Your task to perform on an android device: open a bookmark in the chrome app Image 0: 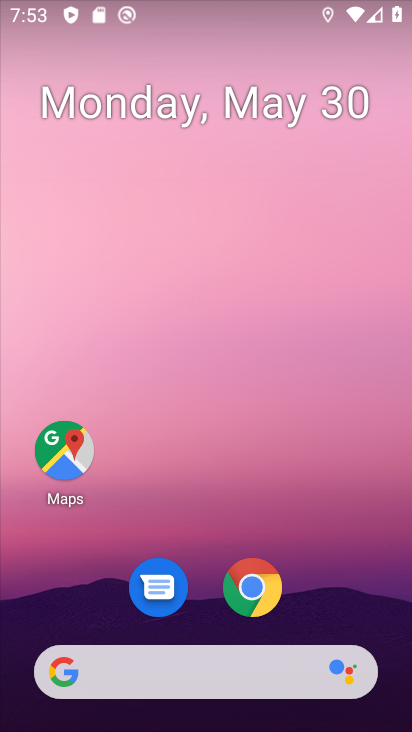
Step 0: click (244, 602)
Your task to perform on an android device: open a bookmark in the chrome app Image 1: 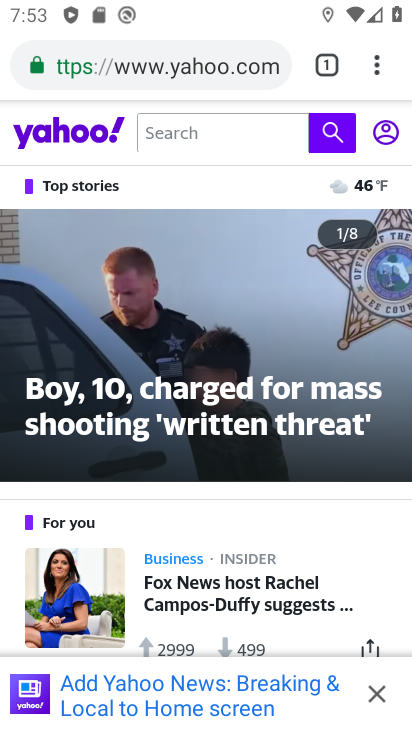
Step 1: task complete